Your task to perform on an android device: Open Android settings Image 0: 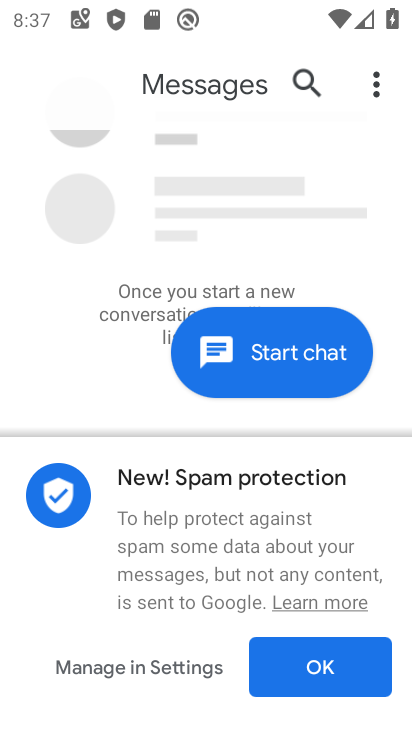
Step 0: press home button
Your task to perform on an android device: Open Android settings Image 1: 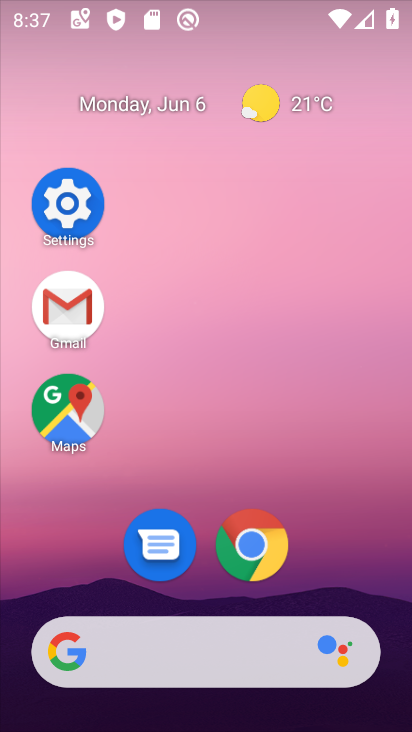
Step 1: click (66, 222)
Your task to perform on an android device: Open Android settings Image 2: 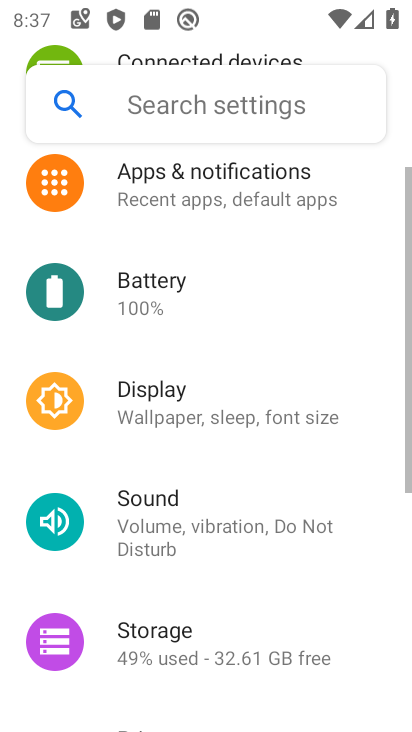
Step 2: task complete